Your task to perform on an android device: search for starred emails in the gmail app Image 0: 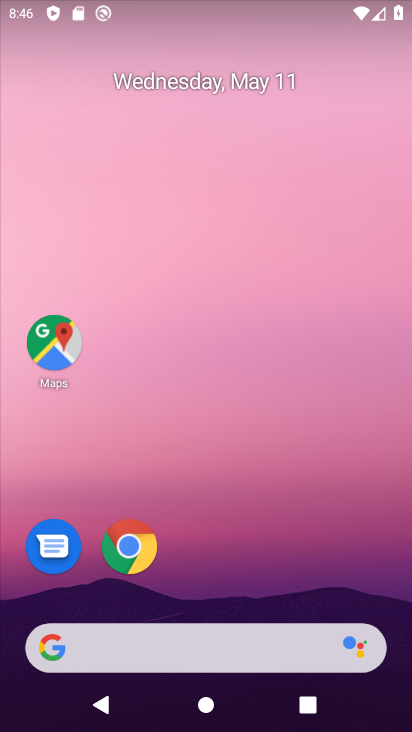
Step 0: drag from (342, 510) to (253, 54)
Your task to perform on an android device: search for starred emails in the gmail app Image 1: 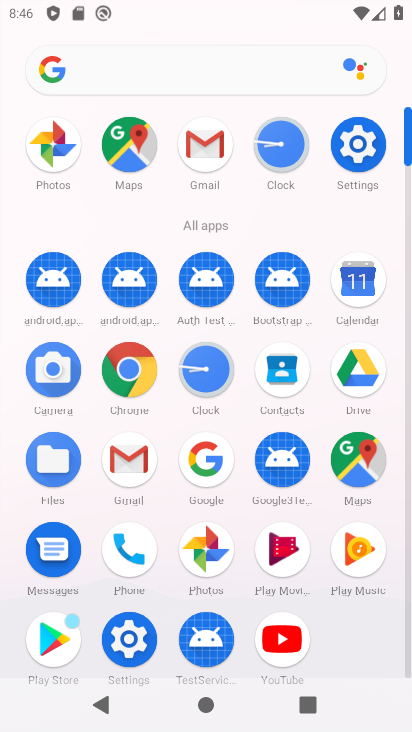
Step 1: click (203, 144)
Your task to perform on an android device: search for starred emails in the gmail app Image 2: 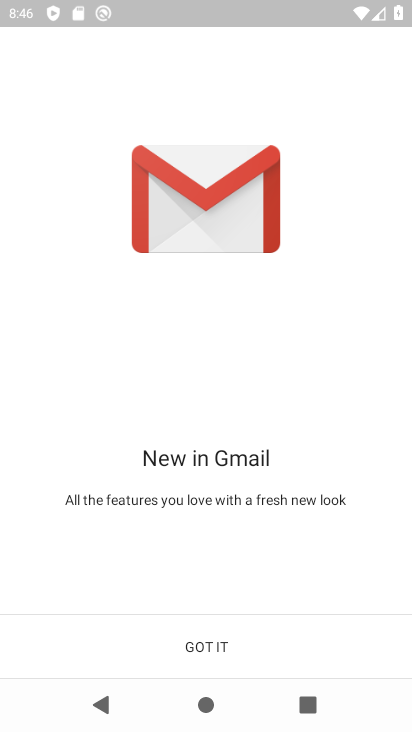
Step 2: click (211, 656)
Your task to perform on an android device: search for starred emails in the gmail app Image 3: 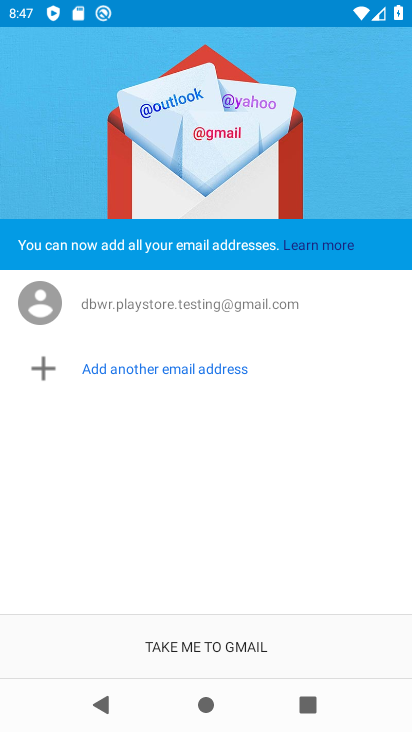
Step 3: click (264, 644)
Your task to perform on an android device: search for starred emails in the gmail app Image 4: 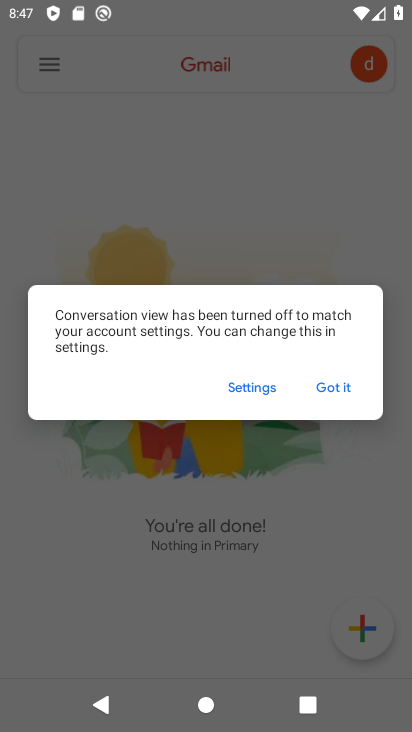
Step 4: click (322, 388)
Your task to perform on an android device: search for starred emails in the gmail app Image 5: 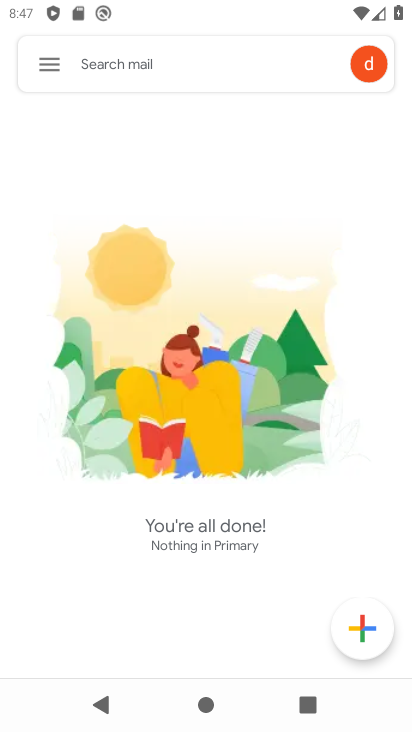
Step 5: click (37, 62)
Your task to perform on an android device: search for starred emails in the gmail app Image 6: 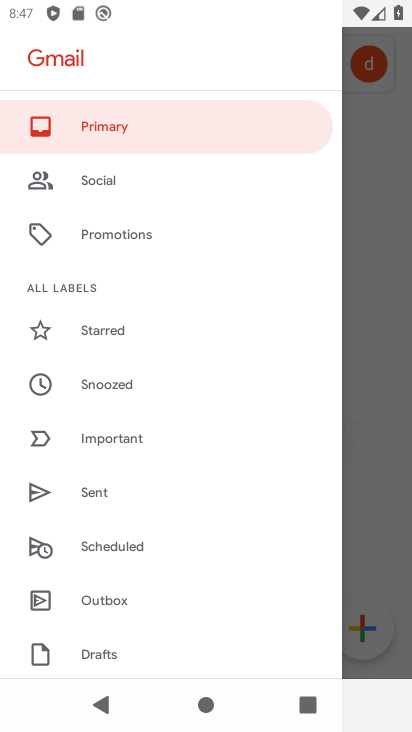
Step 6: click (148, 330)
Your task to perform on an android device: search for starred emails in the gmail app Image 7: 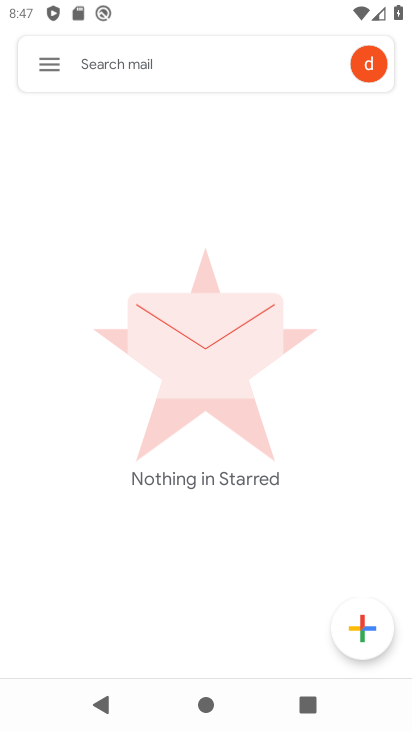
Step 7: task complete